Your task to perform on an android device: Show me popular games on the Play Store Image 0: 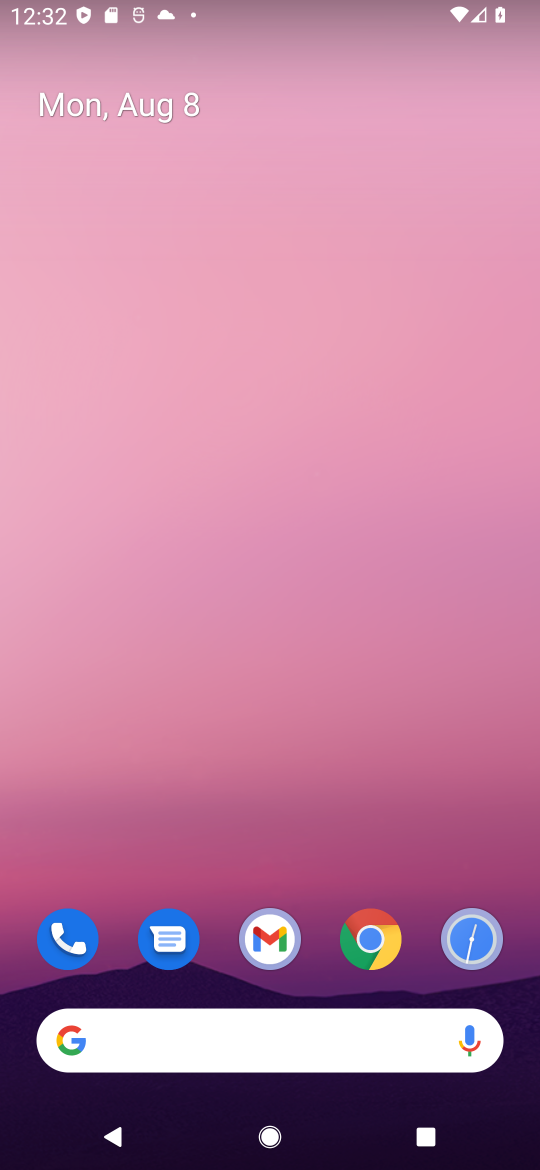
Step 0: drag from (233, 1054) to (370, 251)
Your task to perform on an android device: Show me popular games on the Play Store Image 1: 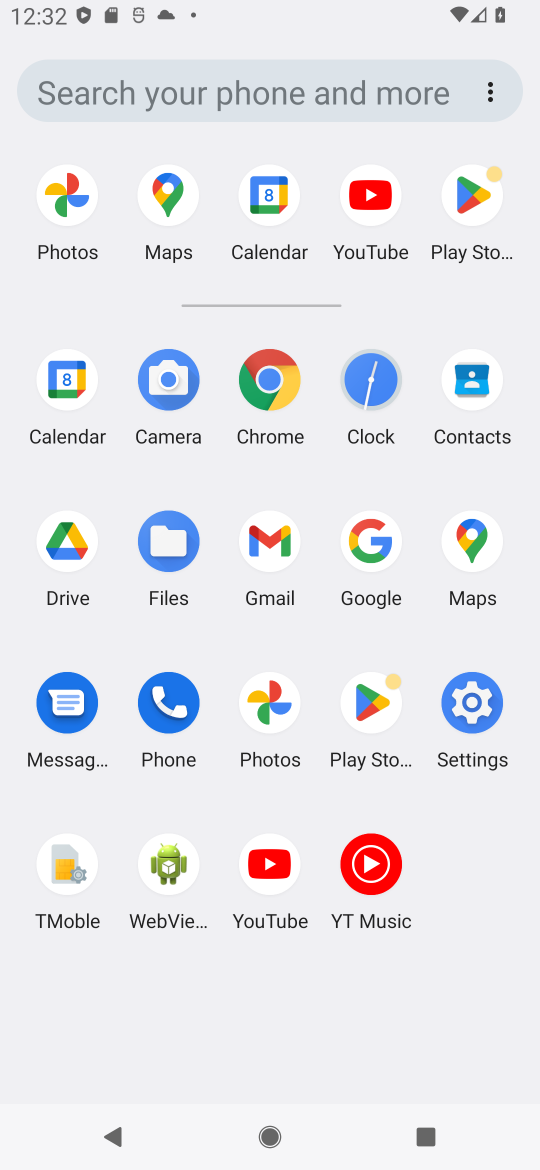
Step 1: click (476, 203)
Your task to perform on an android device: Show me popular games on the Play Store Image 2: 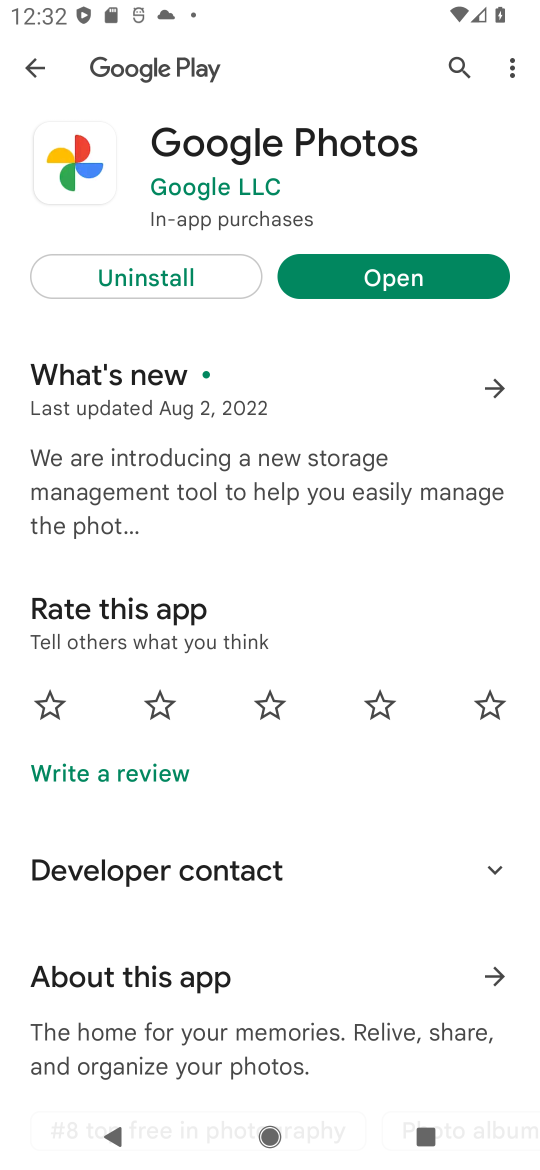
Step 2: press back button
Your task to perform on an android device: Show me popular games on the Play Store Image 3: 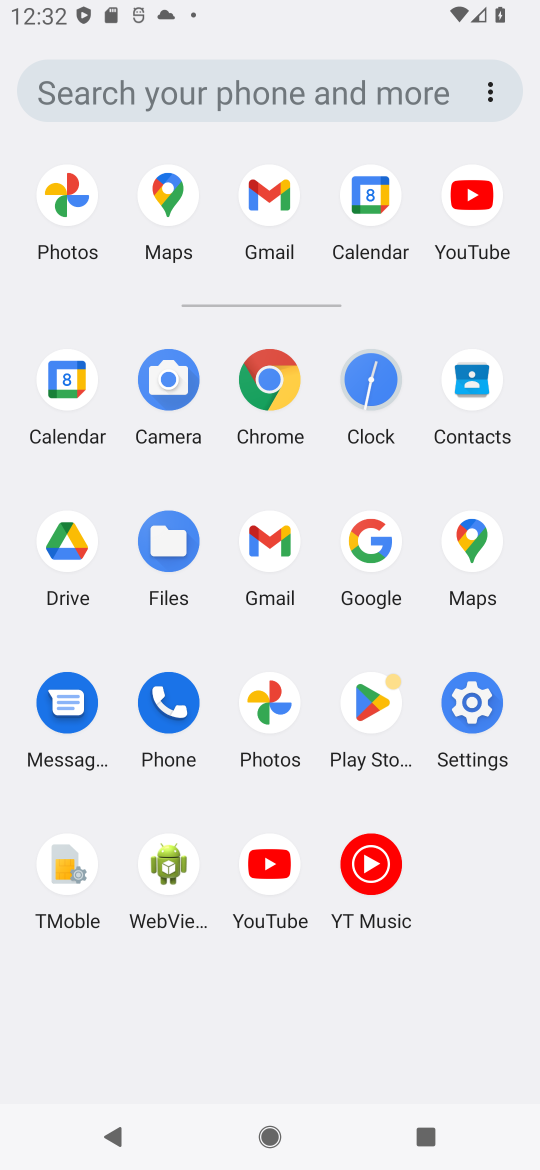
Step 3: click (377, 704)
Your task to perform on an android device: Show me popular games on the Play Store Image 4: 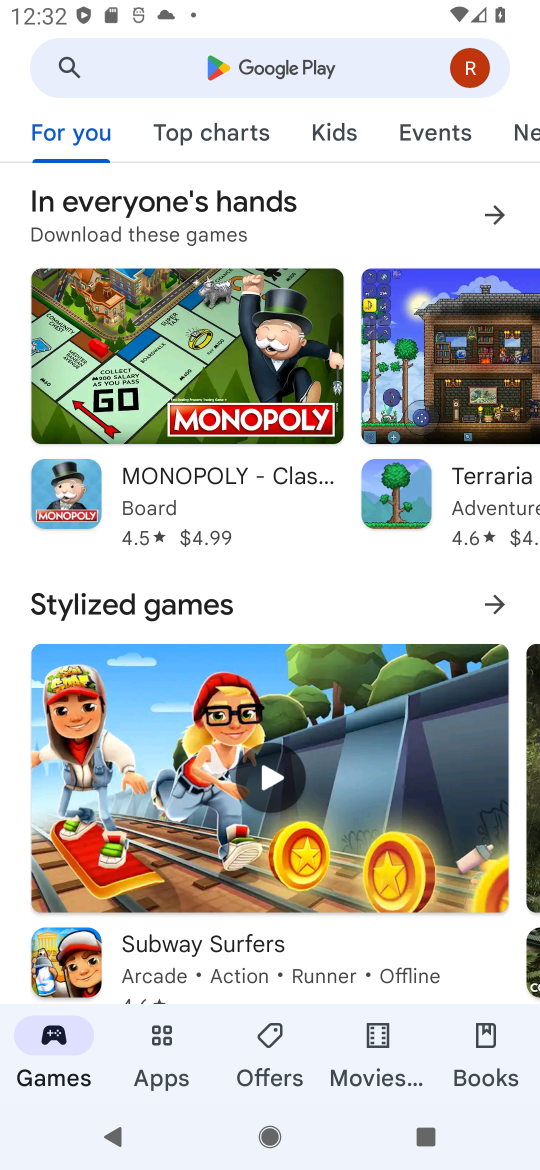
Step 4: click (345, 72)
Your task to perform on an android device: Show me popular games on the Play Store Image 5: 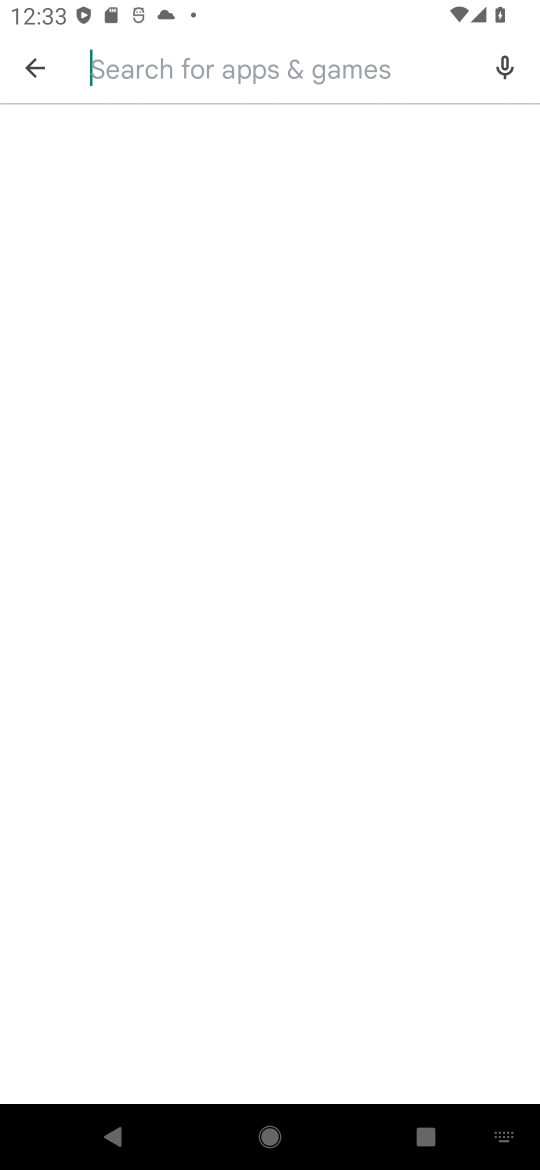
Step 5: type "popular games"
Your task to perform on an android device: Show me popular games on the Play Store Image 6: 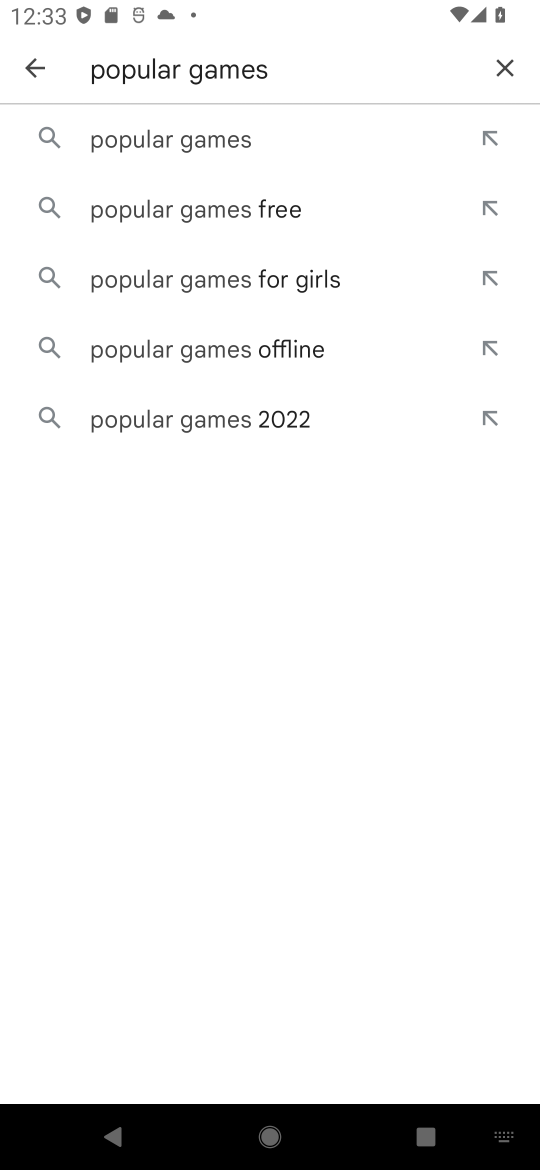
Step 6: click (186, 147)
Your task to perform on an android device: Show me popular games on the Play Store Image 7: 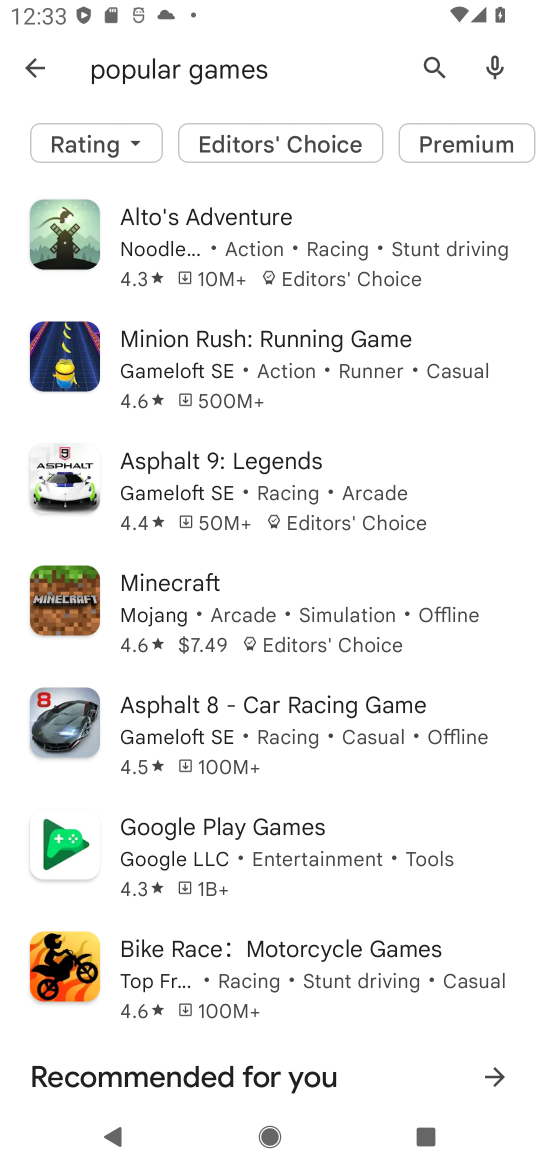
Step 7: task complete